Your task to perform on an android device: open app "YouTube Kids" Image 0: 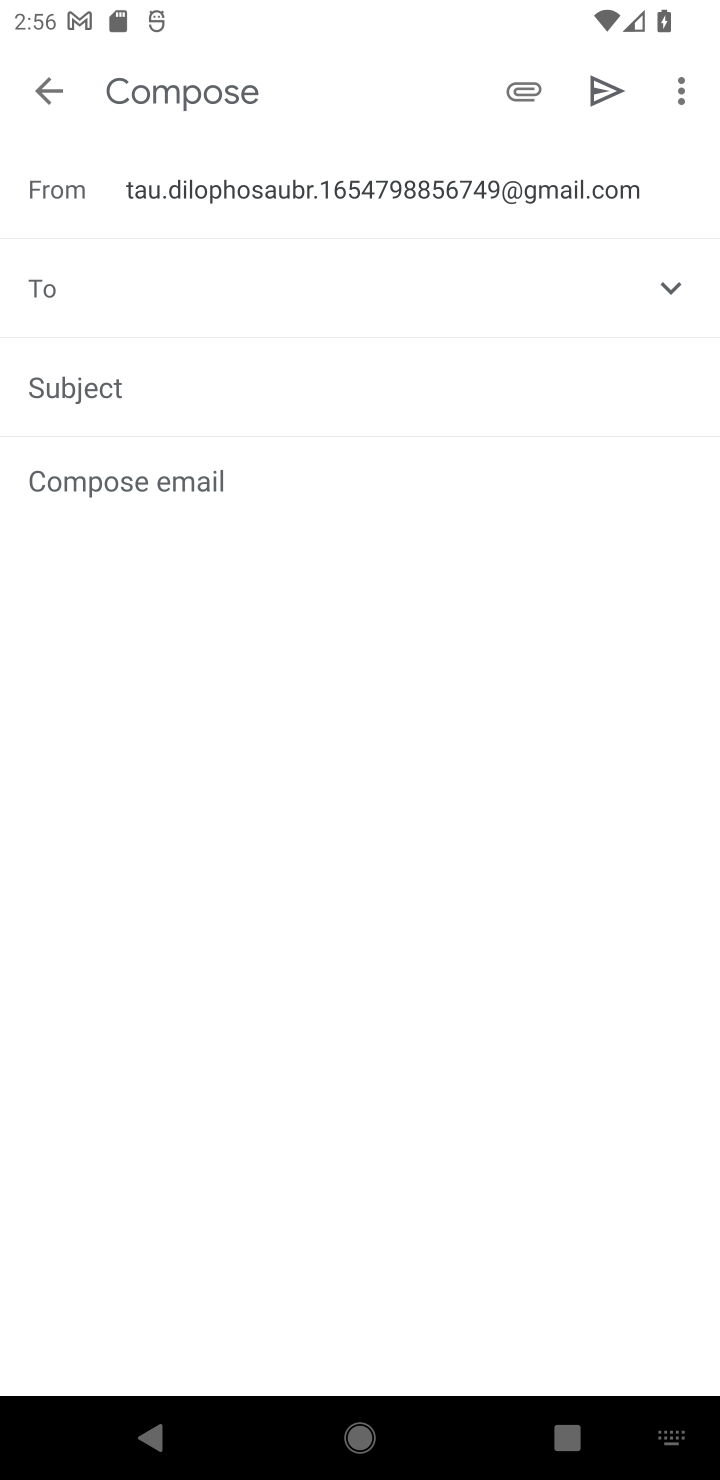
Step 0: press home button
Your task to perform on an android device: open app "YouTube Kids" Image 1: 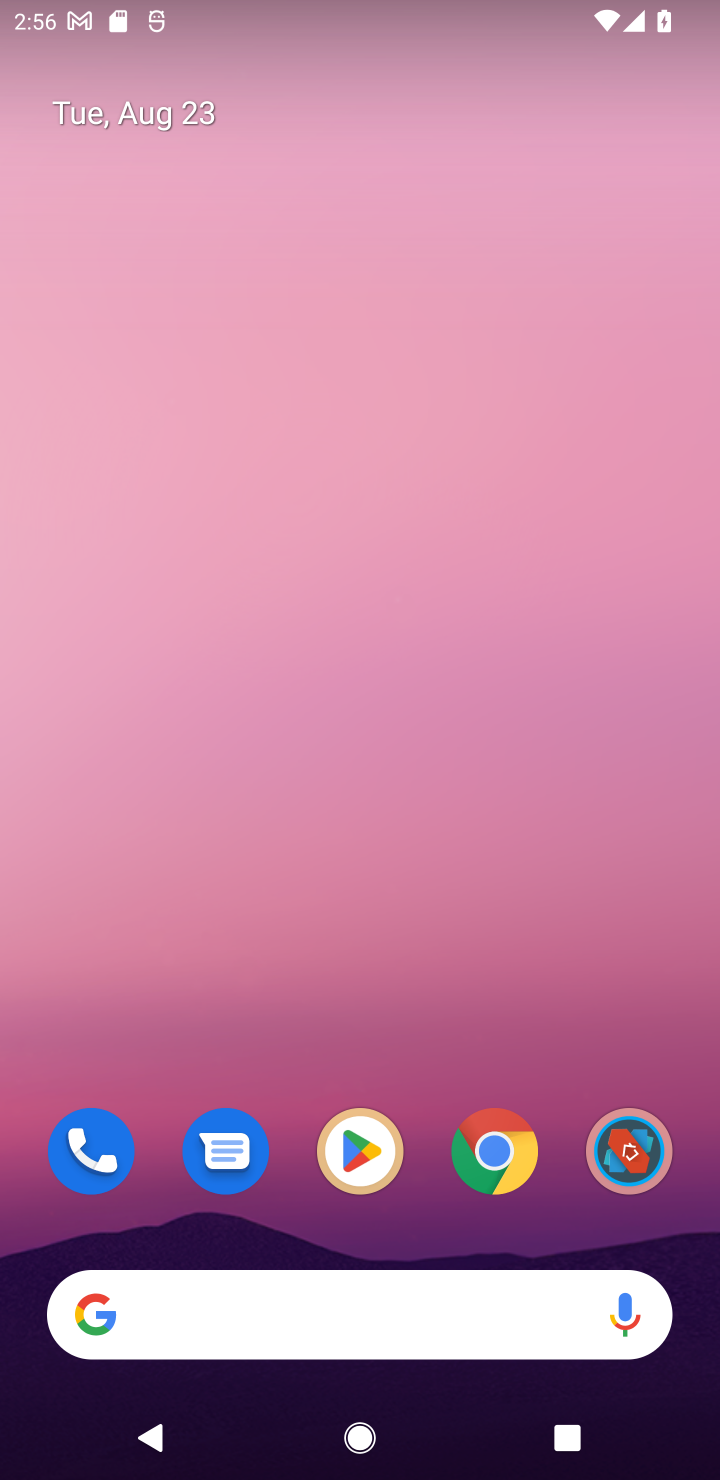
Step 1: click (351, 1140)
Your task to perform on an android device: open app "YouTube Kids" Image 2: 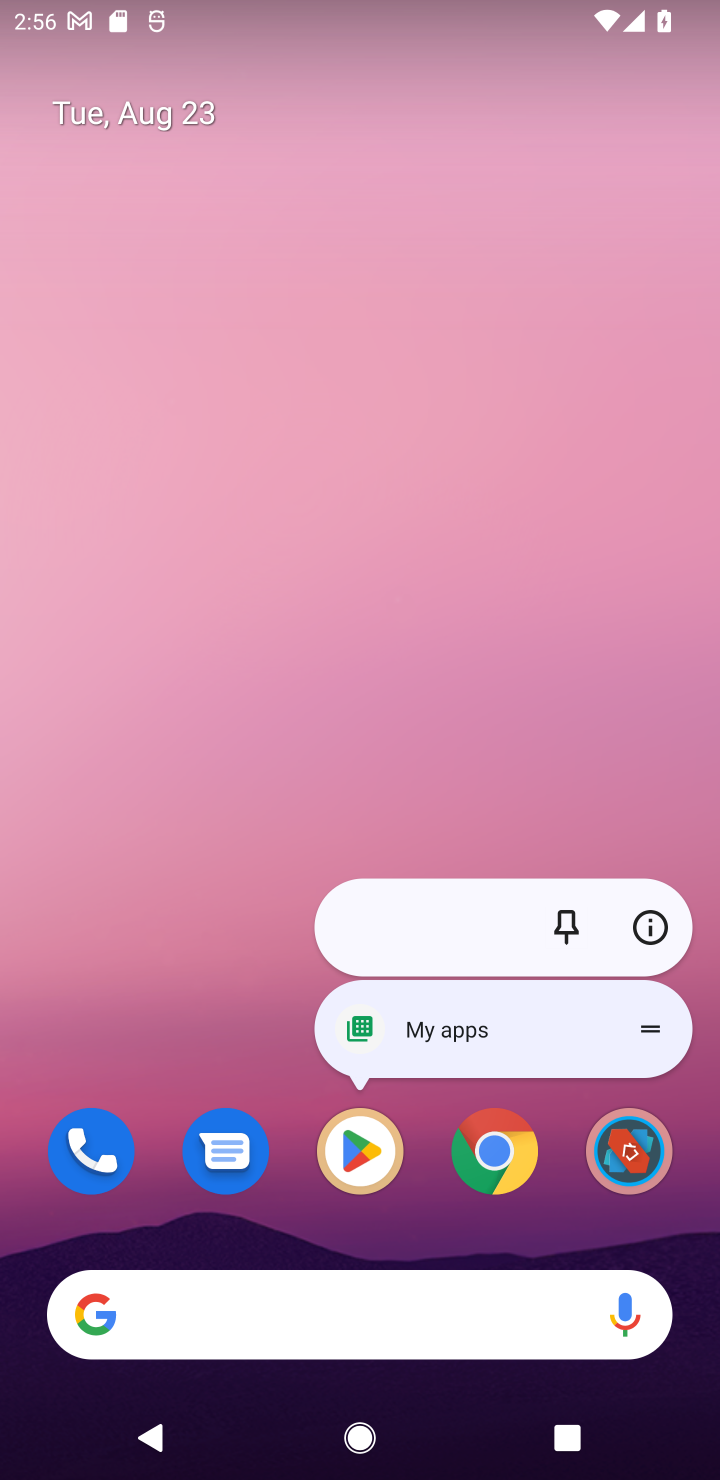
Step 2: click (351, 1144)
Your task to perform on an android device: open app "YouTube Kids" Image 3: 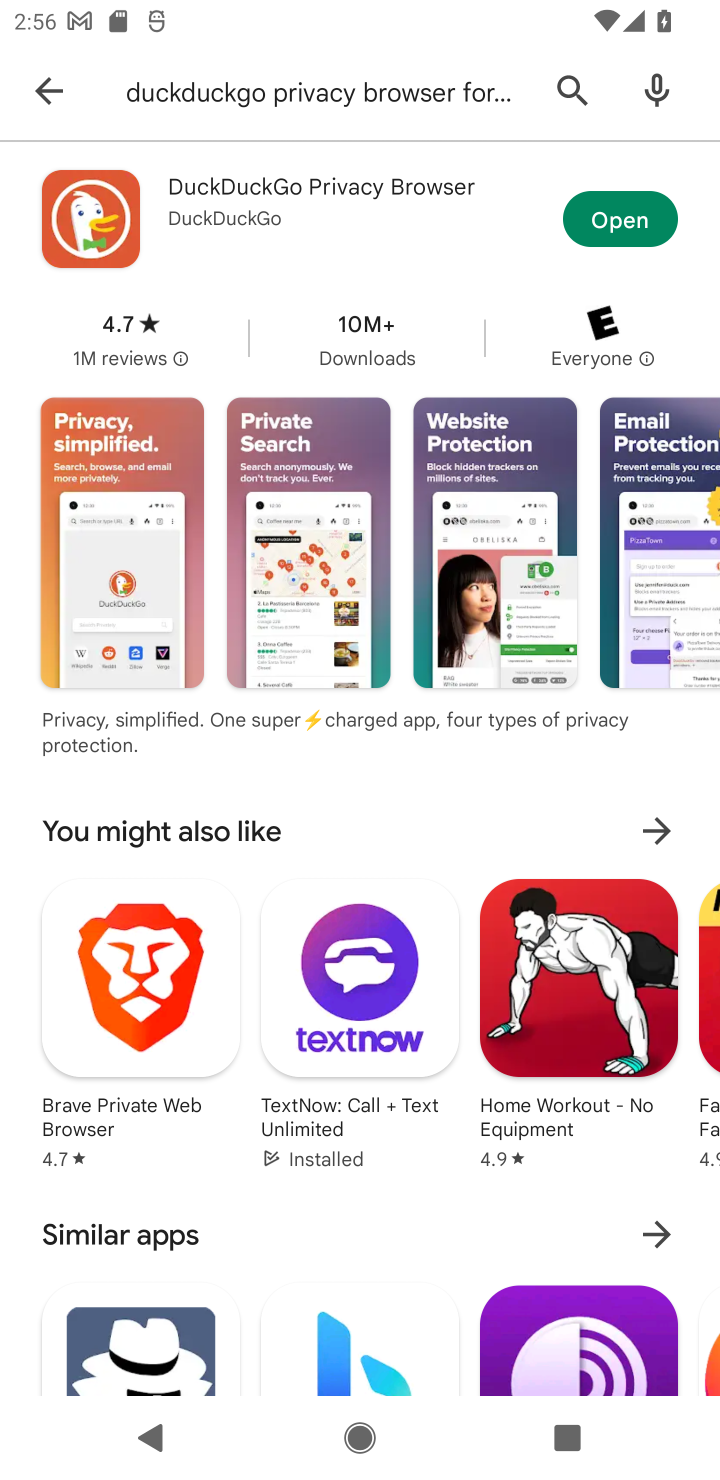
Step 3: click (559, 83)
Your task to perform on an android device: open app "YouTube Kids" Image 4: 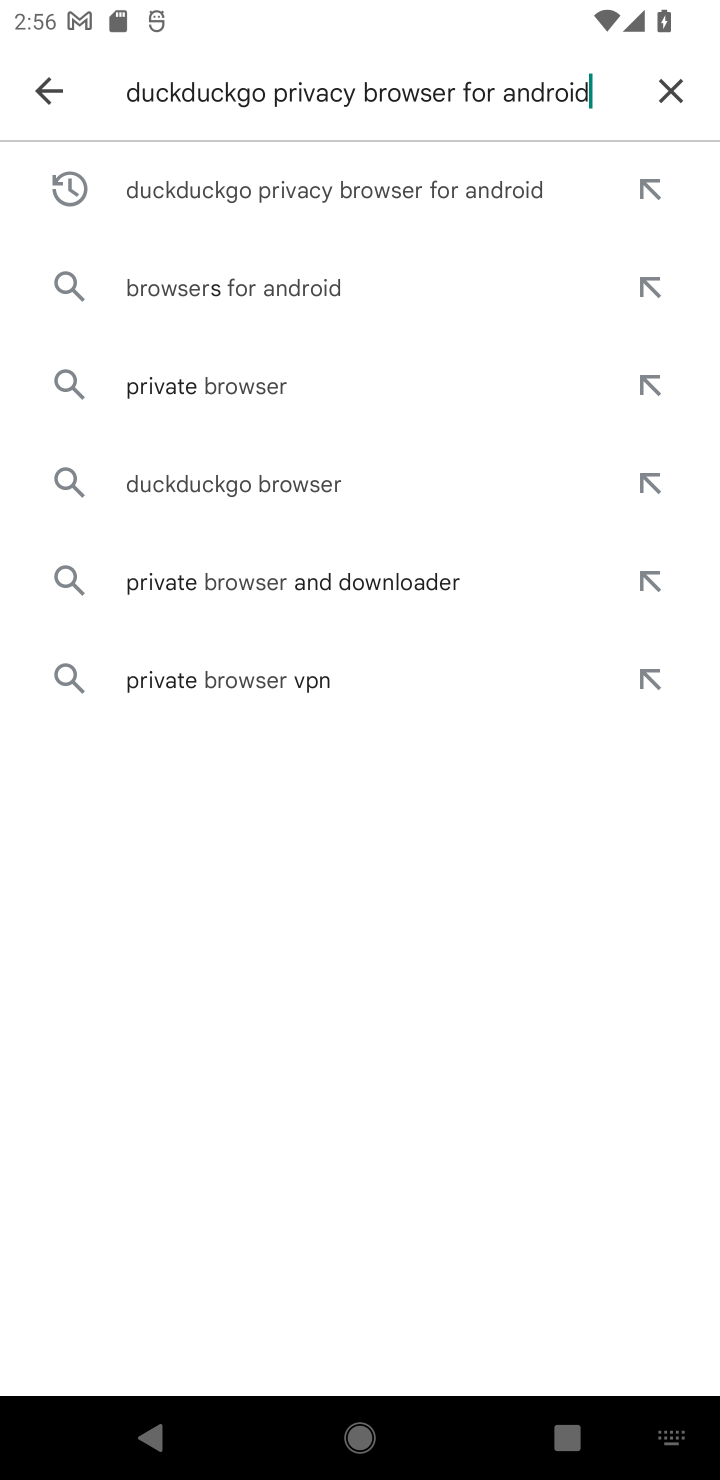
Step 4: click (658, 80)
Your task to perform on an android device: open app "YouTube Kids" Image 5: 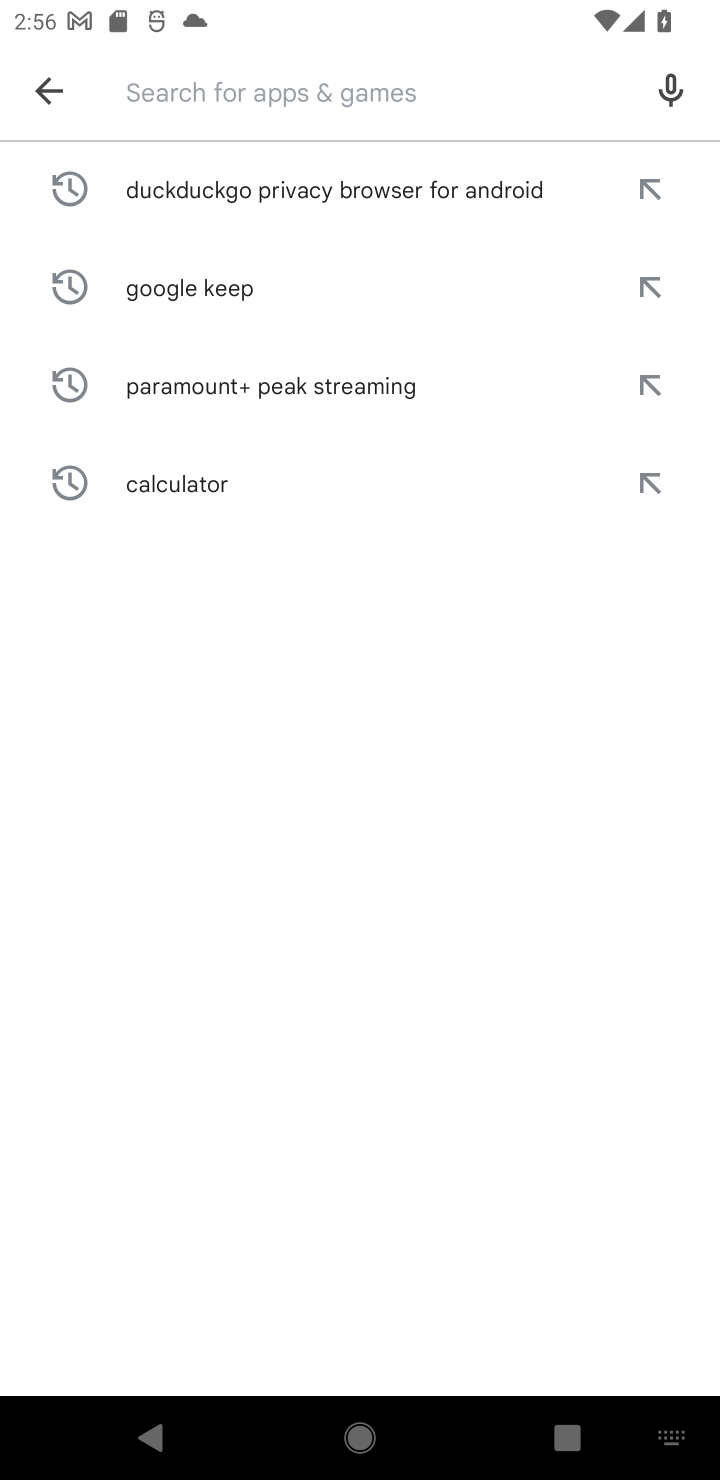
Step 5: type "YouTube Kids"
Your task to perform on an android device: open app "YouTube Kids" Image 6: 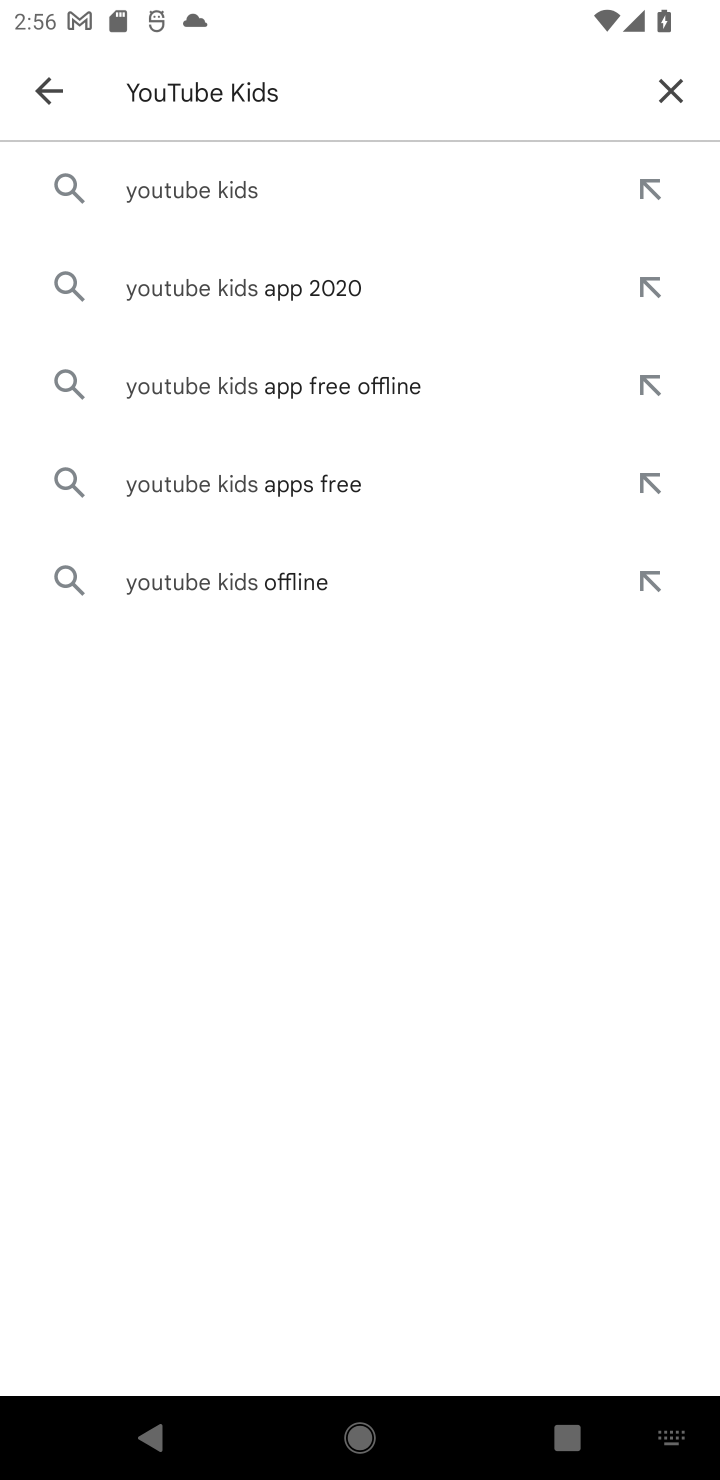
Step 6: click (231, 178)
Your task to perform on an android device: open app "YouTube Kids" Image 7: 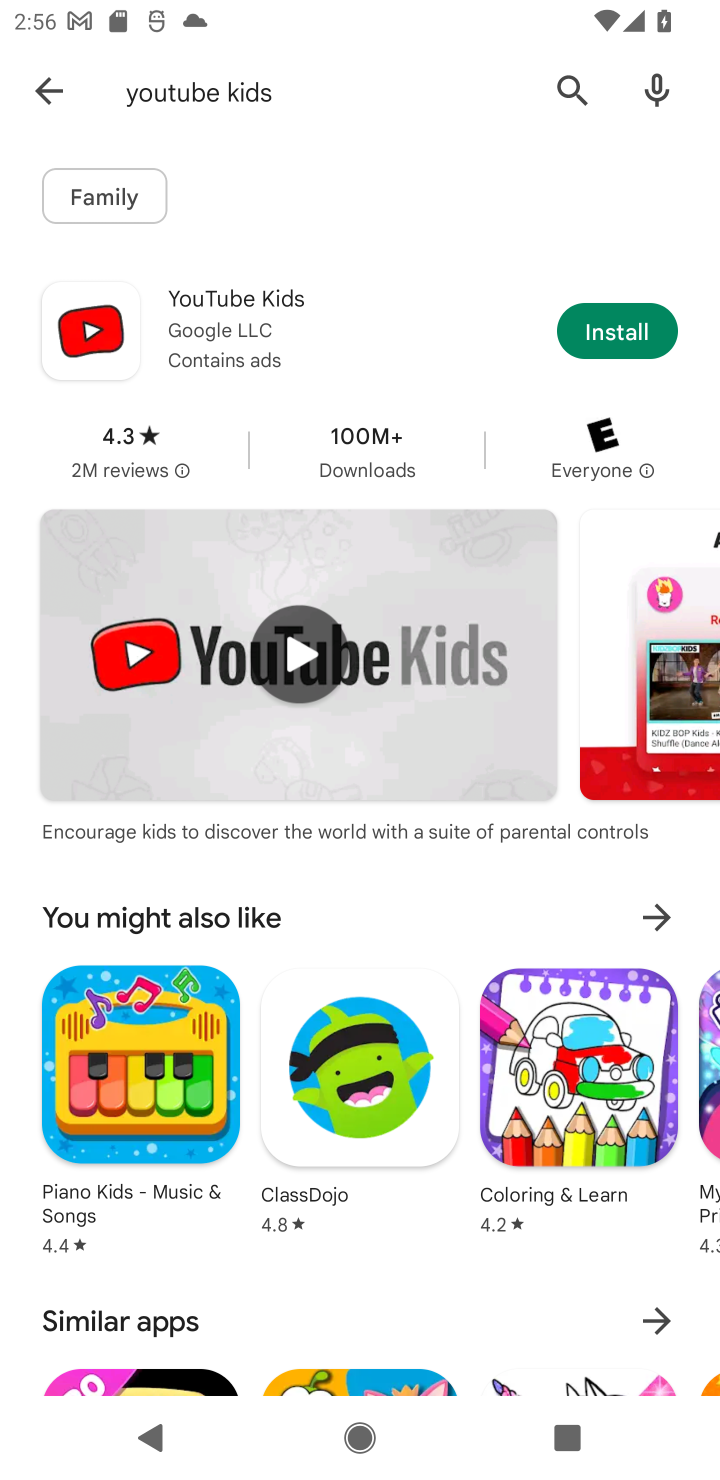
Step 7: task complete